Your task to perform on an android device: Go to wifi settings Image 0: 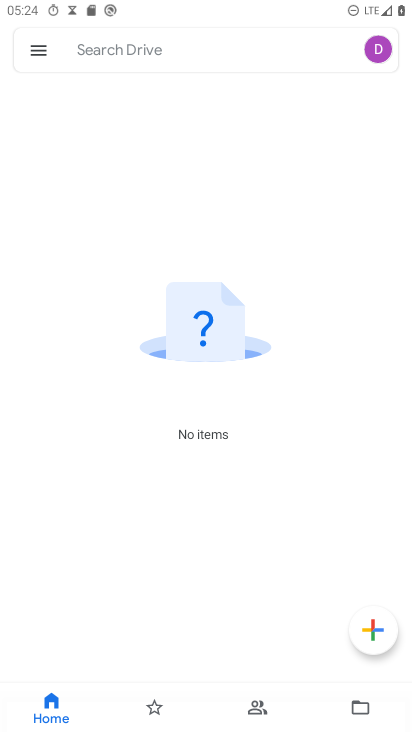
Step 0: press home button
Your task to perform on an android device: Go to wifi settings Image 1: 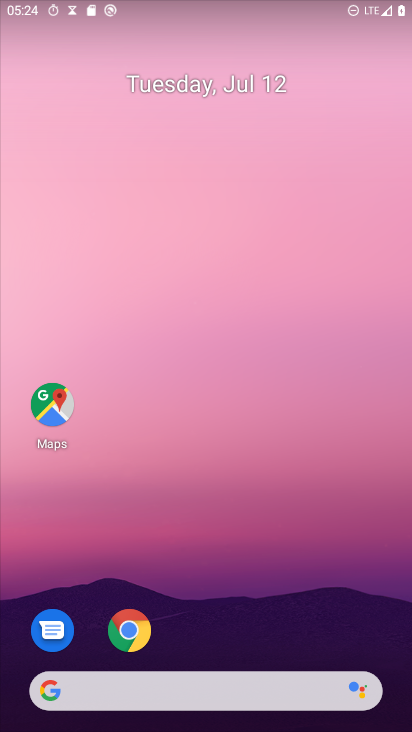
Step 1: drag from (301, 654) to (333, 57)
Your task to perform on an android device: Go to wifi settings Image 2: 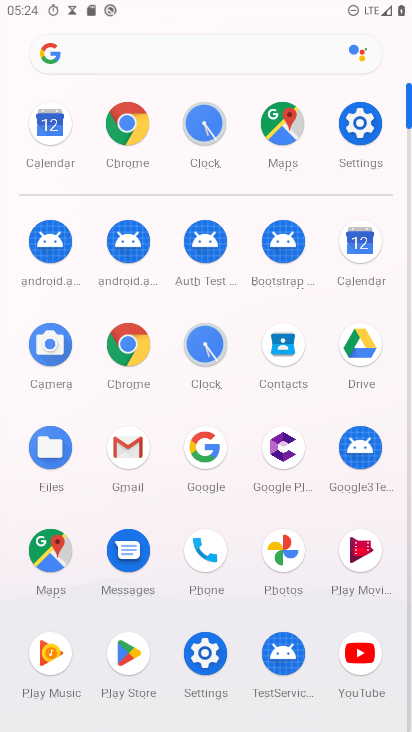
Step 2: click (356, 133)
Your task to perform on an android device: Go to wifi settings Image 3: 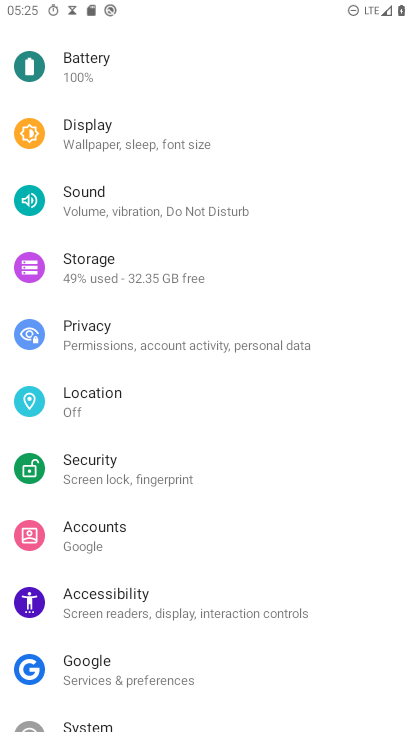
Step 3: drag from (111, 139) to (138, 731)
Your task to perform on an android device: Go to wifi settings Image 4: 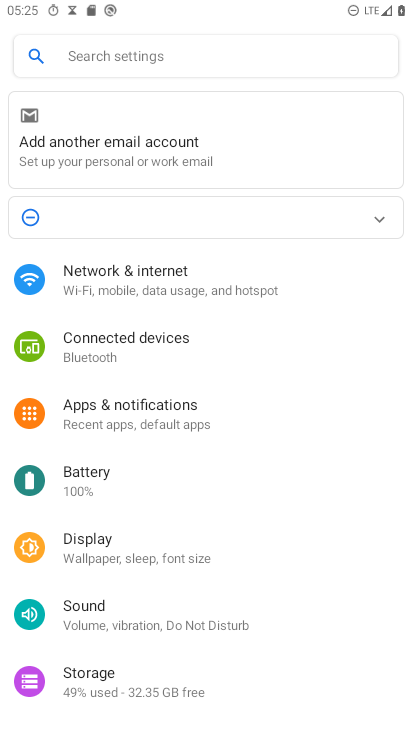
Step 4: click (147, 281)
Your task to perform on an android device: Go to wifi settings Image 5: 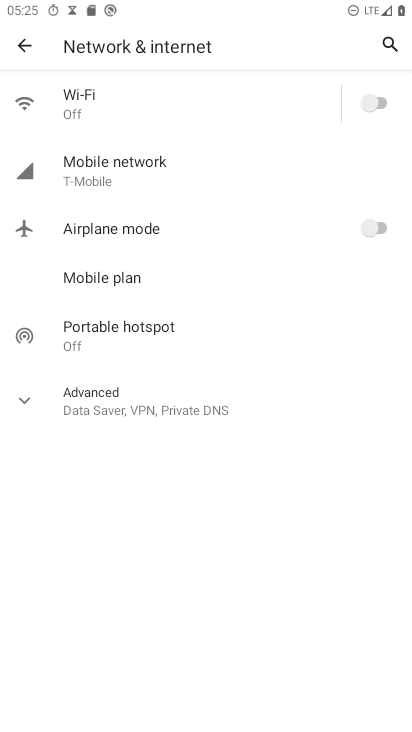
Step 5: task complete